Your task to perform on an android device: change notifications settings Image 0: 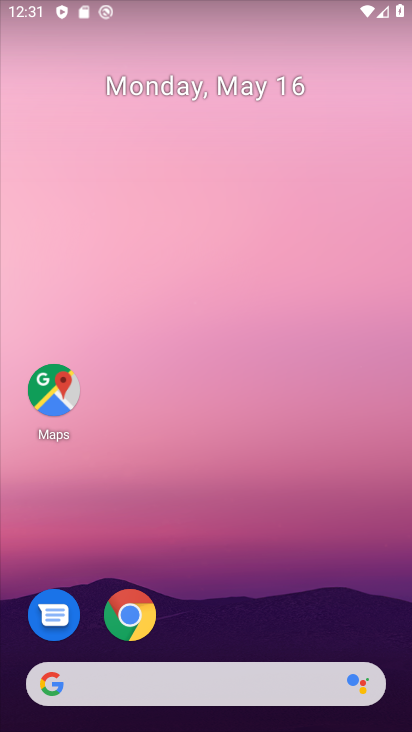
Step 0: drag from (310, 582) to (370, 118)
Your task to perform on an android device: change notifications settings Image 1: 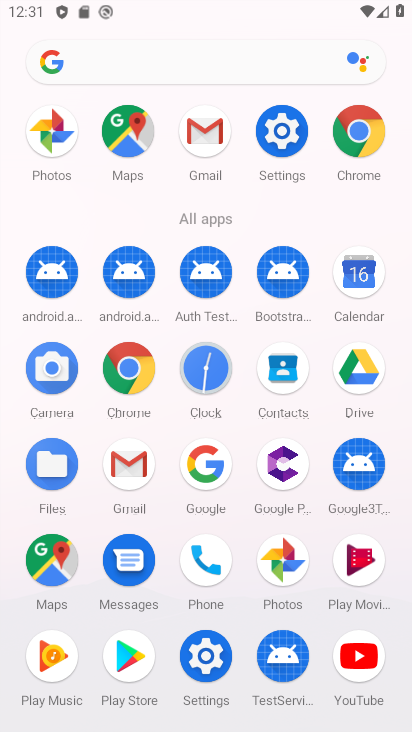
Step 1: click (276, 128)
Your task to perform on an android device: change notifications settings Image 2: 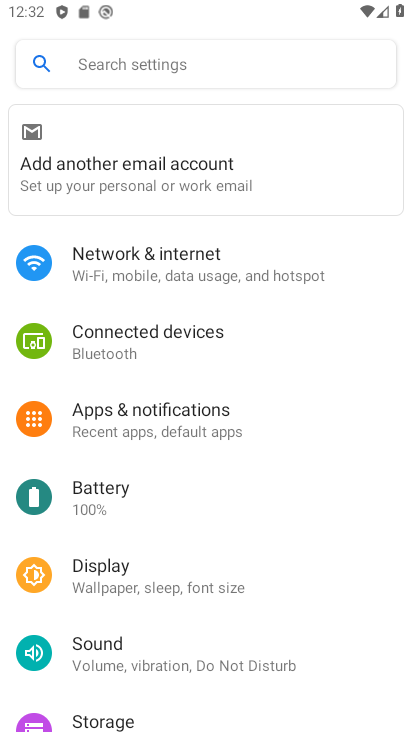
Step 2: drag from (239, 556) to (327, 266)
Your task to perform on an android device: change notifications settings Image 3: 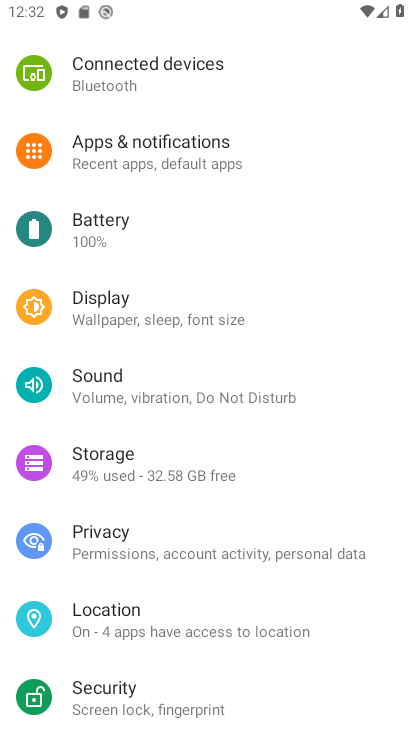
Step 3: click (225, 134)
Your task to perform on an android device: change notifications settings Image 4: 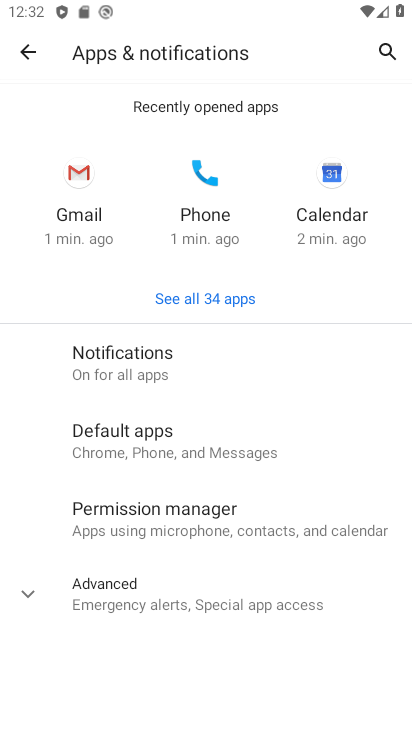
Step 4: click (180, 366)
Your task to perform on an android device: change notifications settings Image 5: 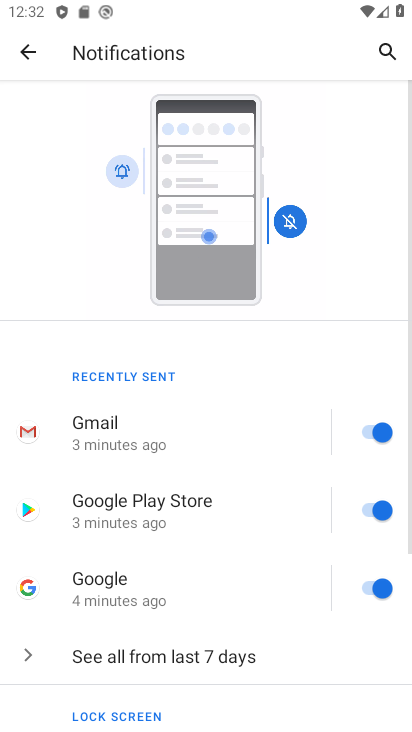
Step 5: drag from (255, 582) to (321, 193)
Your task to perform on an android device: change notifications settings Image 6: 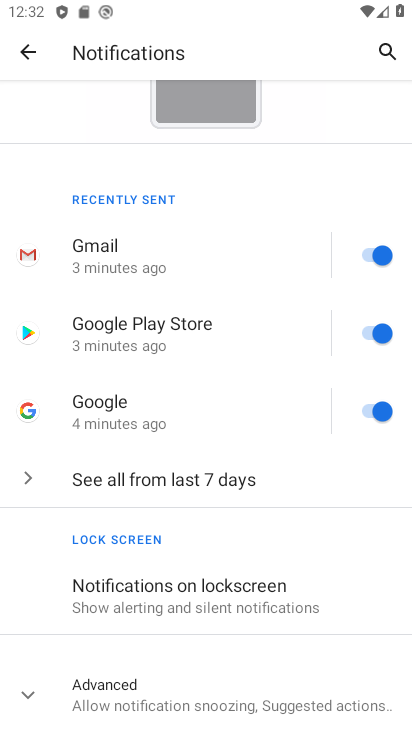
Step 6: click (166, 696)
Your task to perform on an android device: change notifications settings Image 7: 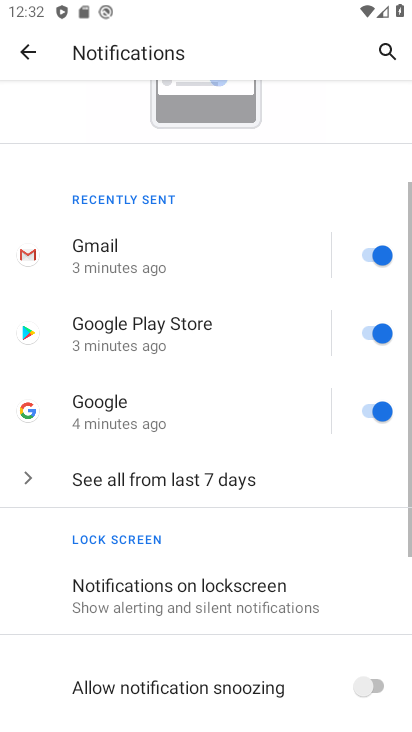
Step 7: task complete